Your task to perform on an android device: clear history in the chrome app Image 0: 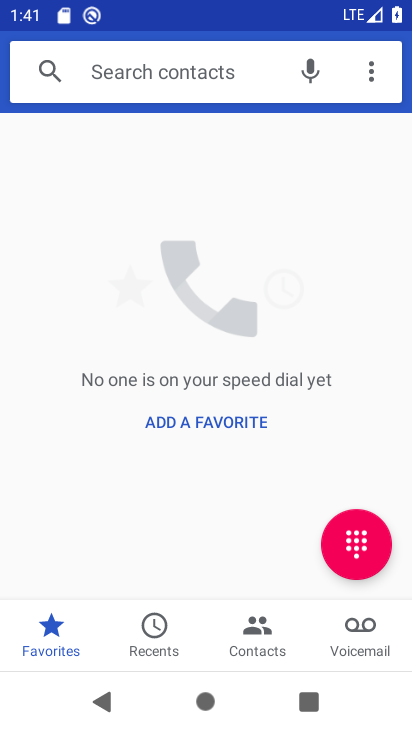
Step 0: press home button
Your task to perform on an android device: clear history in the chrome app Image 1: 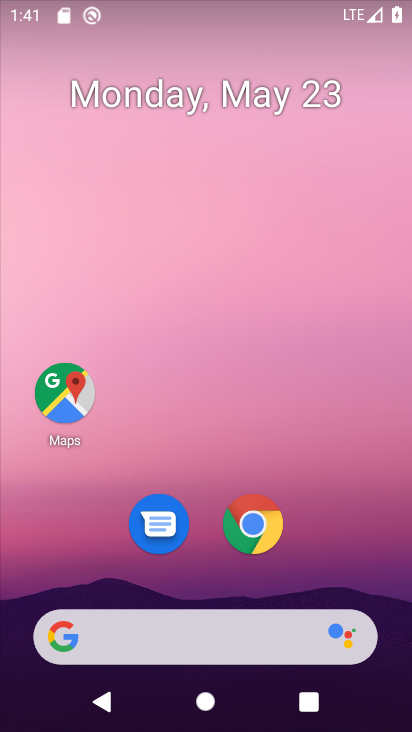
Step 1: click (270, 525)
Your task to perform on an android device: clear history in the chrome app Image 2: 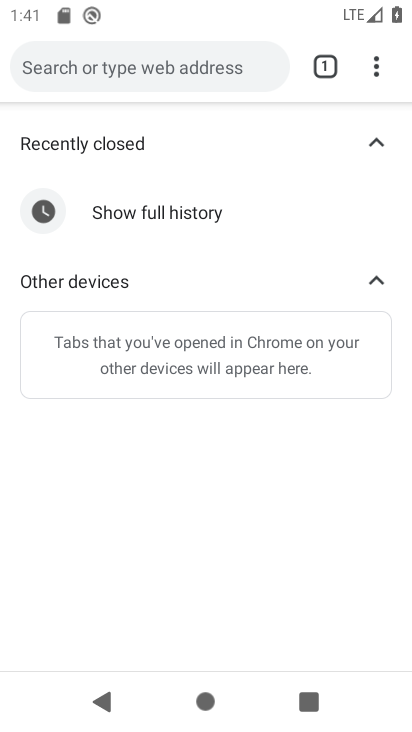
Step 2: click (377, 62)
Your task to perform on an android device: clear history in the chrome app Image 3: 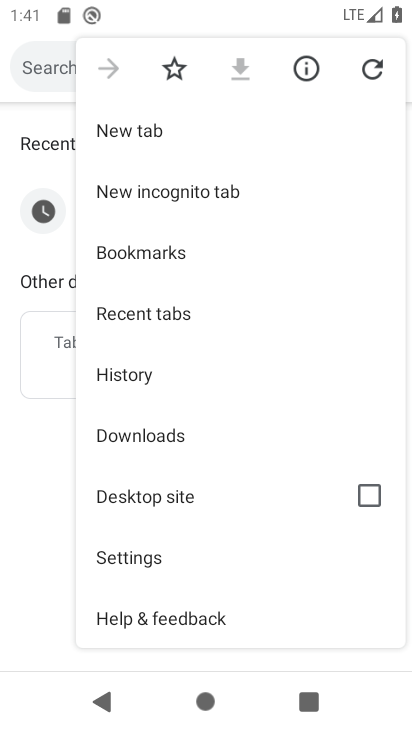
Step 3: click (148, 374)
Your task to perform on an android device: clear history in the chrome app Image 4: 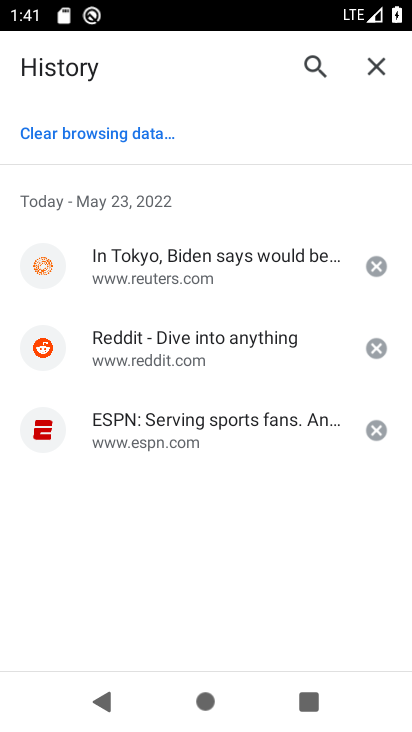
Step 4: click (150, 126)
Your task to perform on an android device: clear history in the chrome app Image 5: 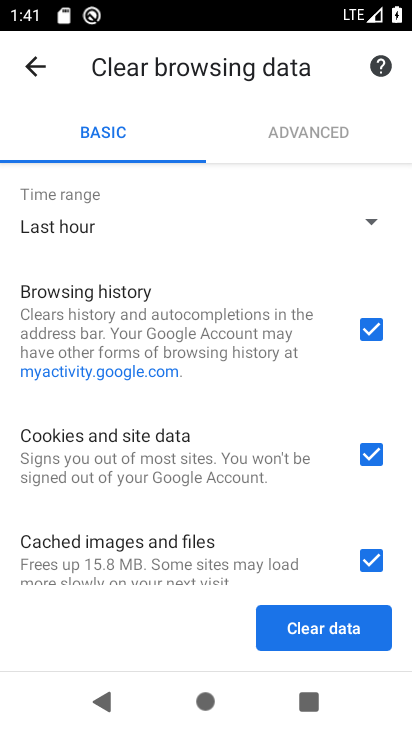
Step 5: click (322, 622)
Your task to perform on an android device: clear history in the chrome app Image 6: 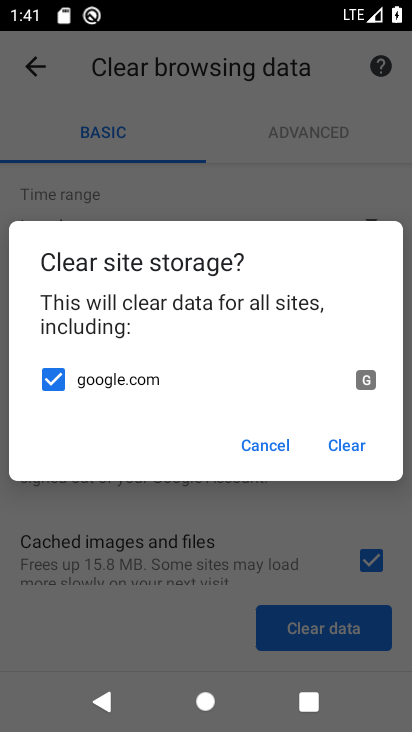
Step 6: click (353, 435)
Your task to perform on an android device: clear history in the chrome app Image 7: 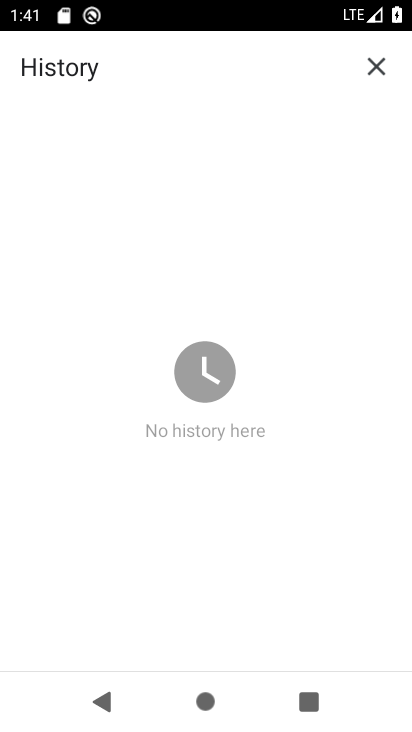
Step 7: task complete